Your task to perform on an android device: Go to settings Image 0: 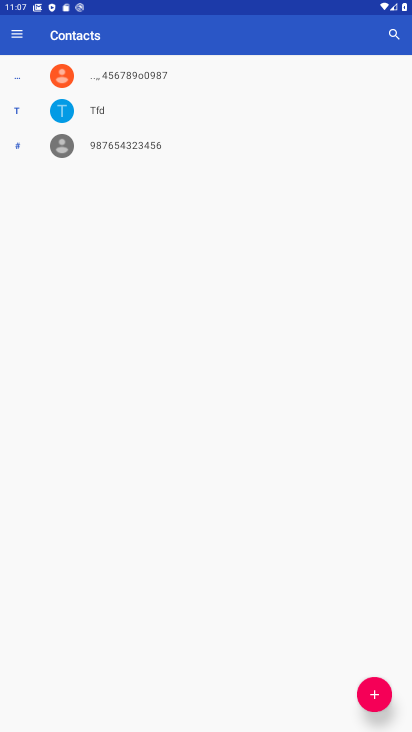
Step 0: press home button
Your task to perform on an android device: Go to settings Image 1: 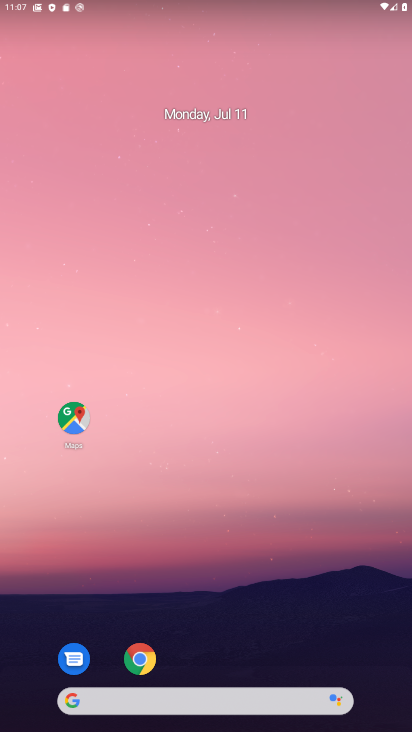
Step 1: drag from (207, 681) to (241, 61)
Your task to perform on an android device: Go to settings Image 2: 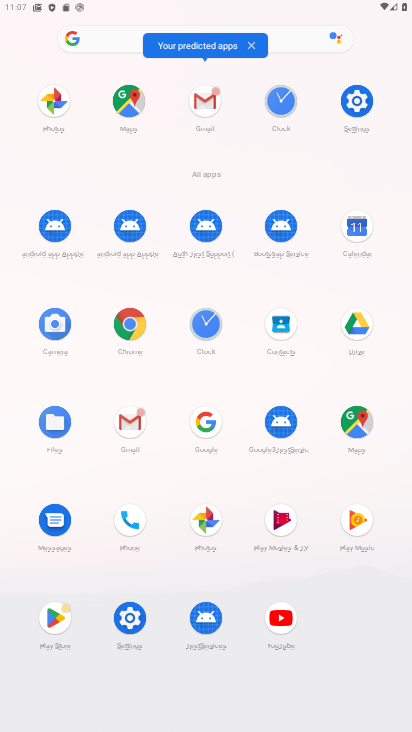
Step 2: click (137, 616)
Your task to perform on an android device: Go to settings Image 3: 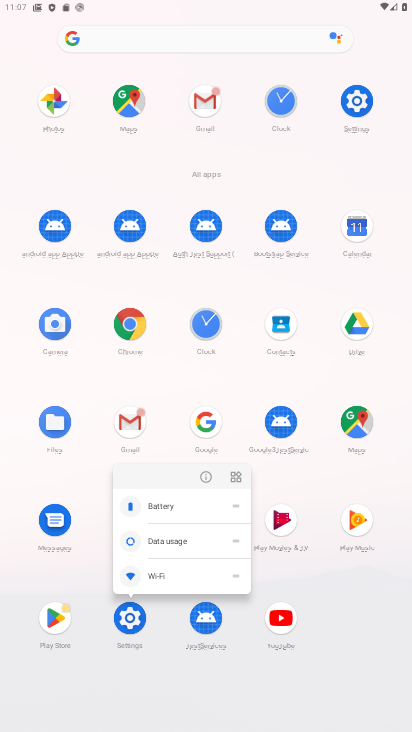
Step 3: click (137, 616)
Your task to perform on an android device: Go to settings Image 4: 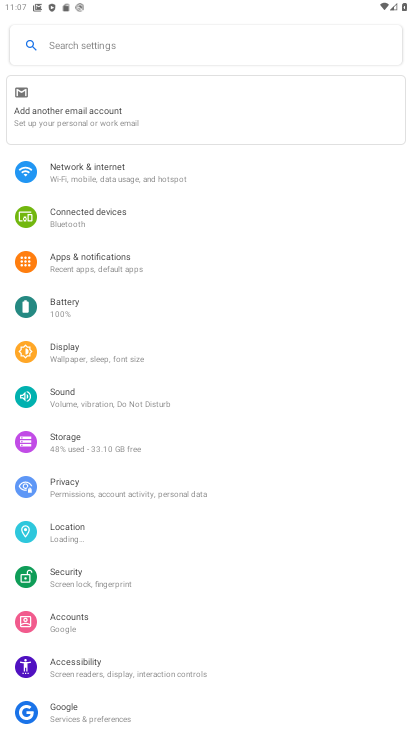
Step 4: task complete